Your task to perform on an android device: Show me productivity apps on the Play Store Image 0: 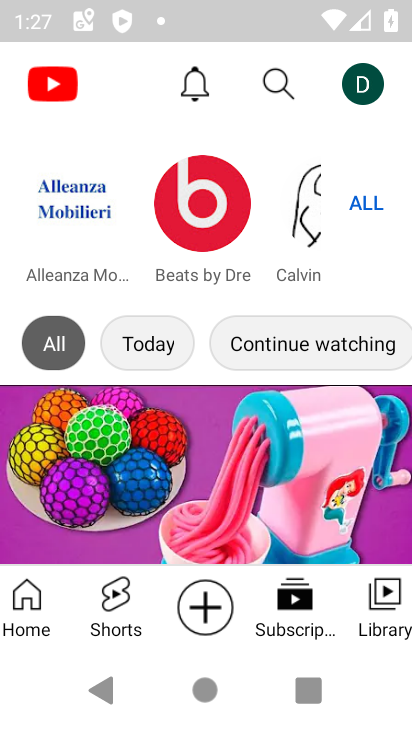
Step 0: press home button
Your task to perform on an android device: Show me productivity apps on the Play Store Image 1: 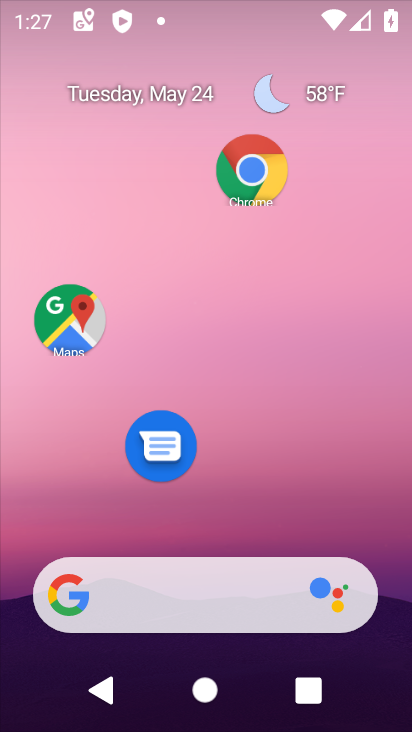
Step 1: drag from (239, 634) to (238, 261)
Your task to perform on an android device: Show me productivity apps on the Play Store Image 2: 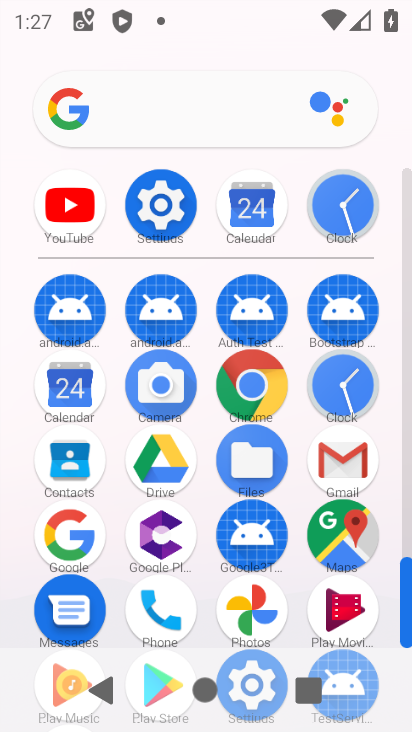
Step 2: drag from (230, 546) to (236, 155)
Your task to perform on an android device: Show me productivity apps on the Play Store Image 3: 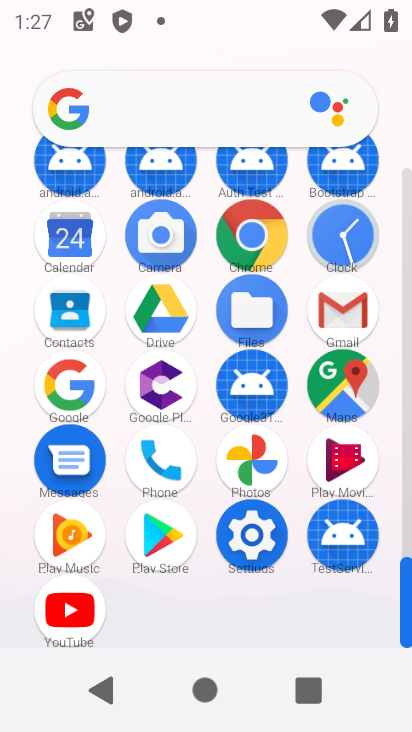
Step 3: click (166, 550)
Your task to perform on an android device: Show me productivity apps on the Play Store Image 4: 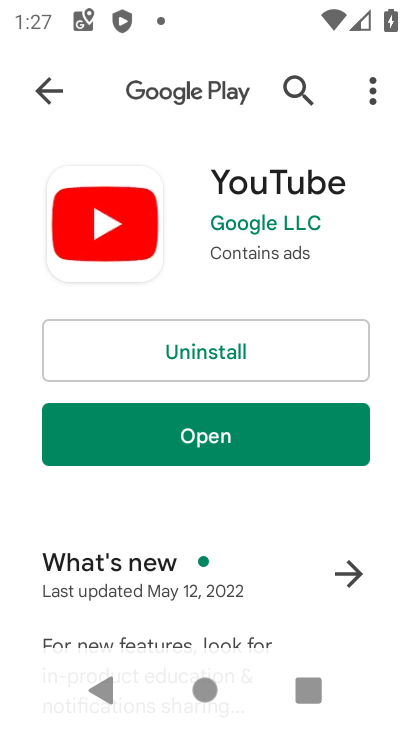
Step 4: click (56, 106)
Your task to perform on an android device: Show me productivity apps on the Play Store Image 5: 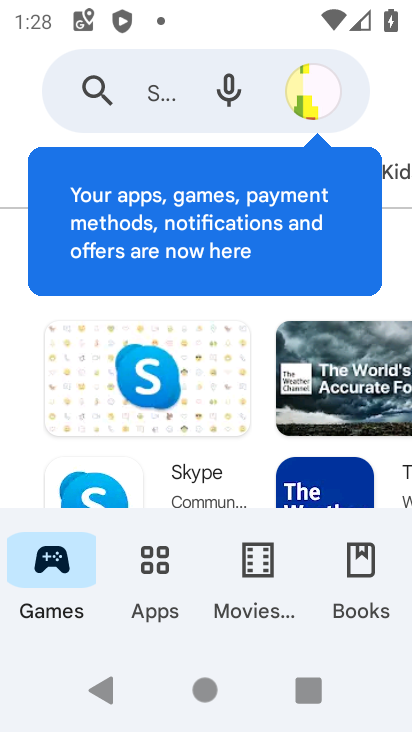
Step 5: click (186, 105)
Your task to perform on an android device: Show me productivity apps on the Play Store Image 6: 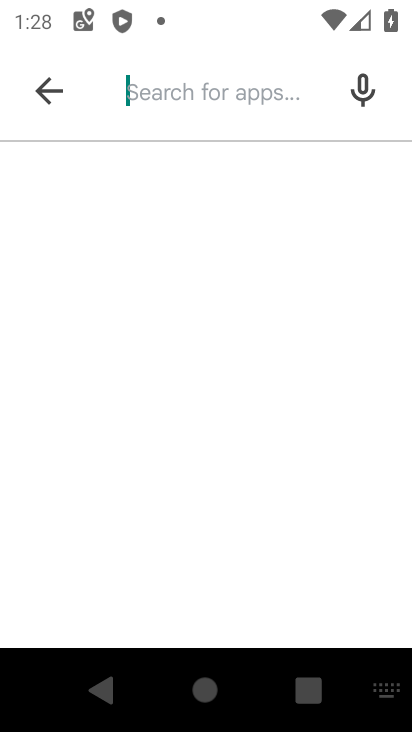
Step 6: type "productivity aaps"
Your task to perform on an android device: Show me productivity apps on the Play Store Image 7: 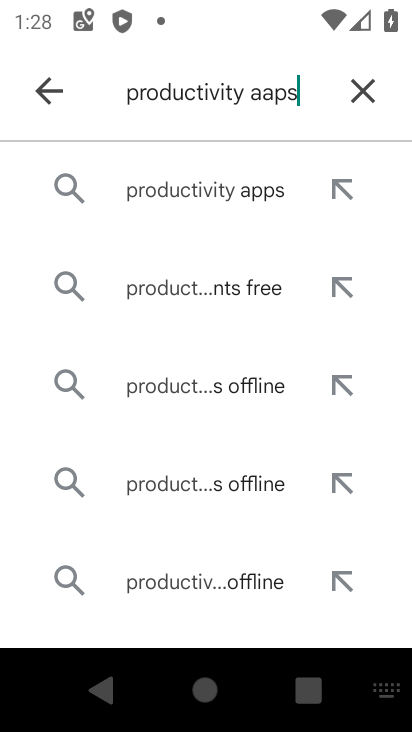
Step 7: click (222, 191)
Your task to perform on an android device: Show me productivity apps on the Play Store Image 8: 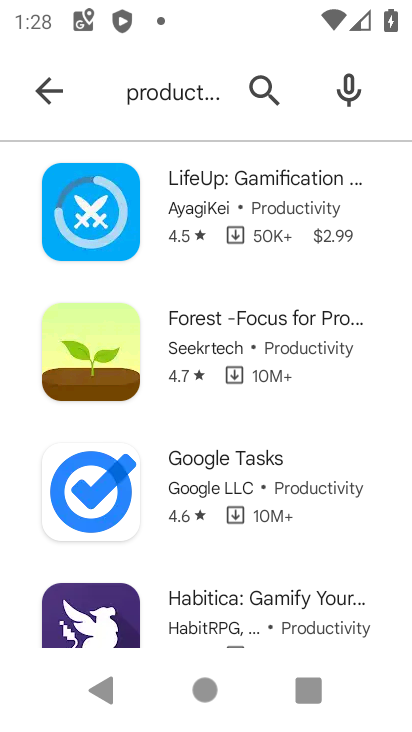
Step 8: task complete